Your task to perform on an android device: toggle notifications settings in the gmail app Image 0: 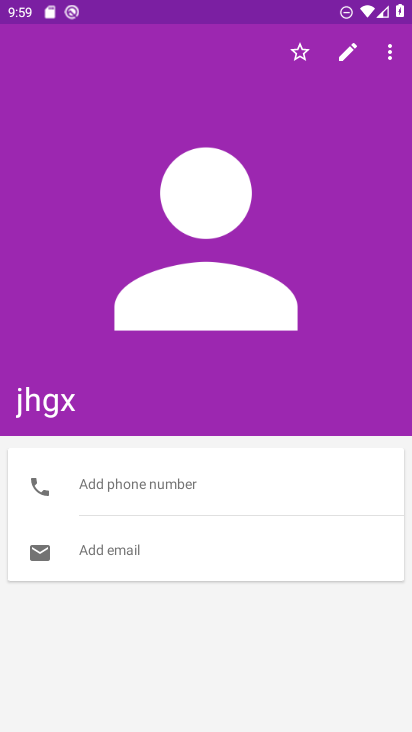
Step 0: press home button
Your task to perform on an android device: toggle notifications settings in the gmail app Image 1: 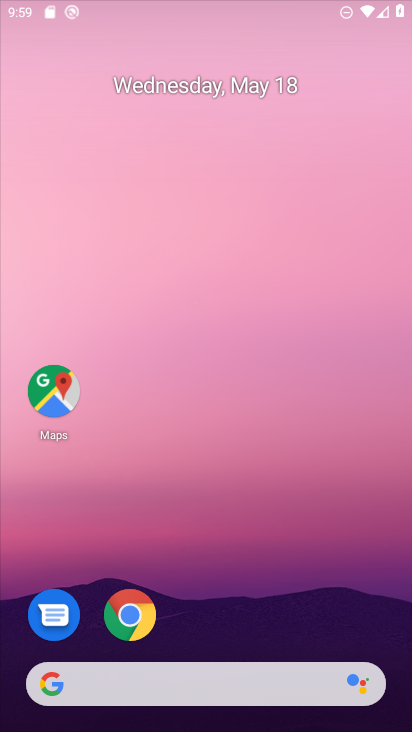
Step 1: drag from (233, 579) to (212, 66)
Your task to perform on an android device: toggle notifications settings in the gmail app Image 2: 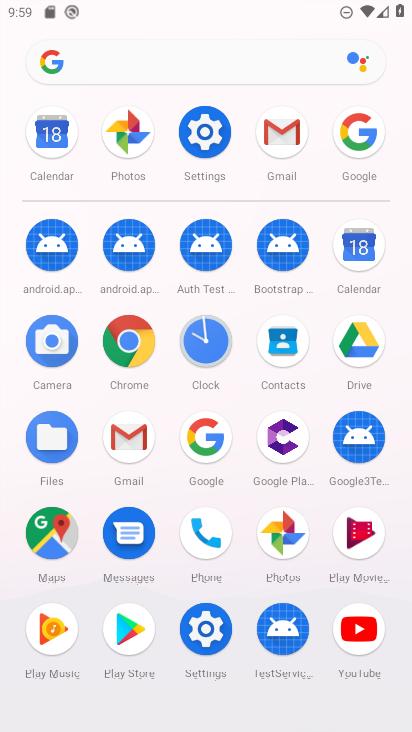
Step 2: click (286, 128)
Your task to perform on an android device: toggle notifications settings in the gmail app Image 3: 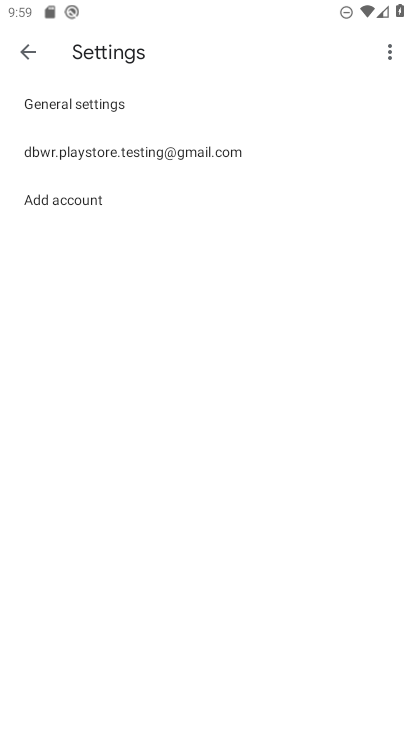
Step 3: click (60, 154)
Your task to perform on an android device: toggle notifications settings in the gmail app Image 4: 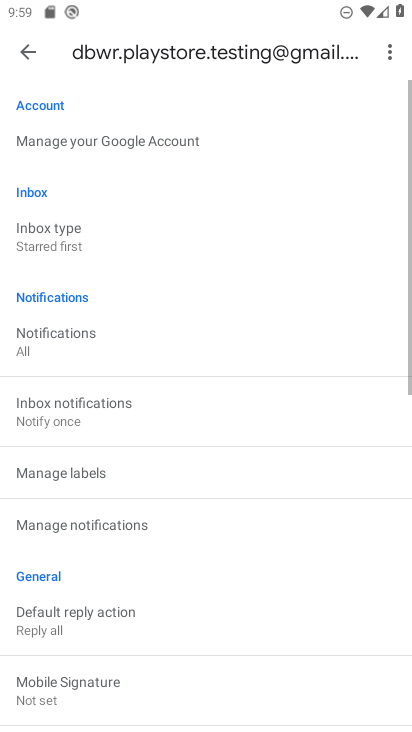
Step 4: click (60, 334)
Your task to perform on an android device: toggle notifications settings in the gmail app Image 5: 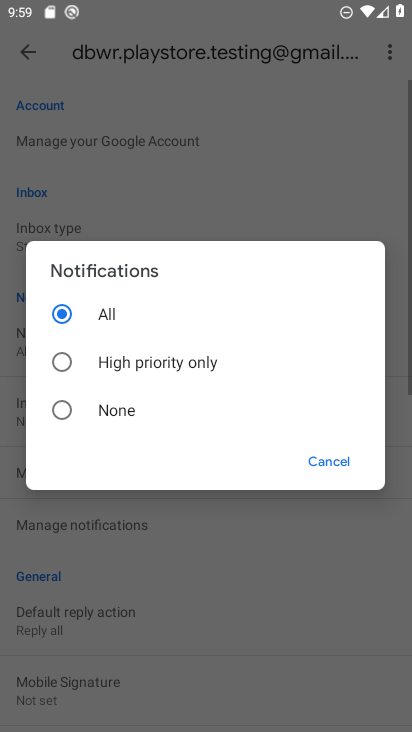
Step 5: click (72, 394)
Your task to perform on an android device: toggle notifications settings in the gmail app Image 6: 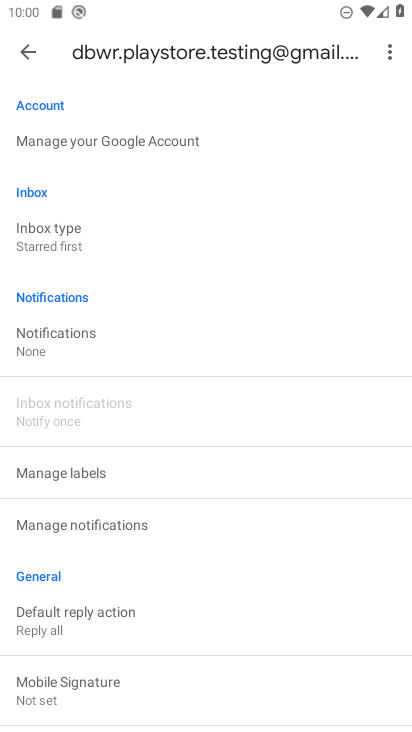
Step 6: task complete